Your task to perform on an android device: Play the last video I watched on Youtube Image 0: 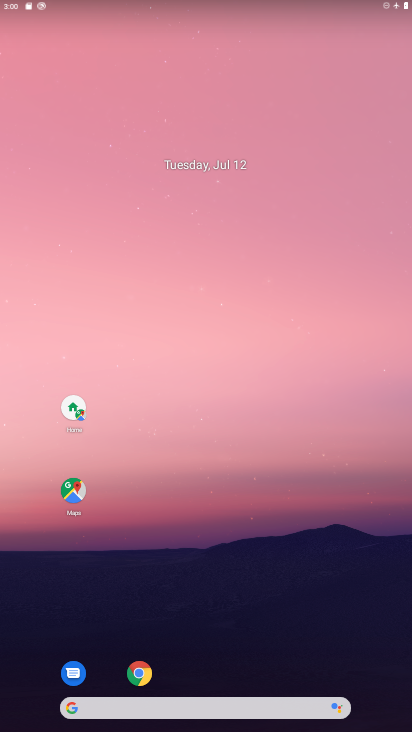
Step 0: drag from (289, 627) to (288, 307)
Your task to perform on an android device: Play the last video I watched on Youtube Image 1: 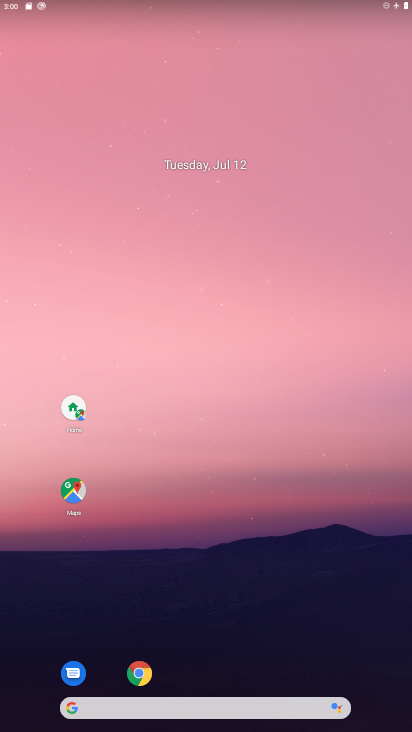
Step 1: drag from (262, 652) to (258, 288)
Your task to perform on an android device: Play the last video I watched on Youtube Image 2: 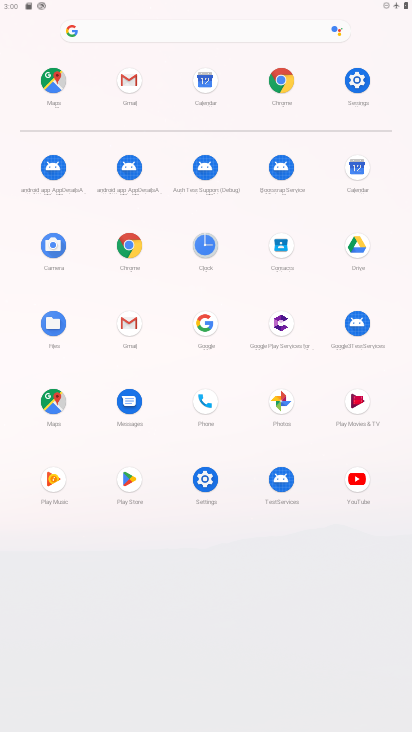
Step 2: click (359, 473)
Your task to perform on an android device: Play the last video I watched on Youtube Image 3: 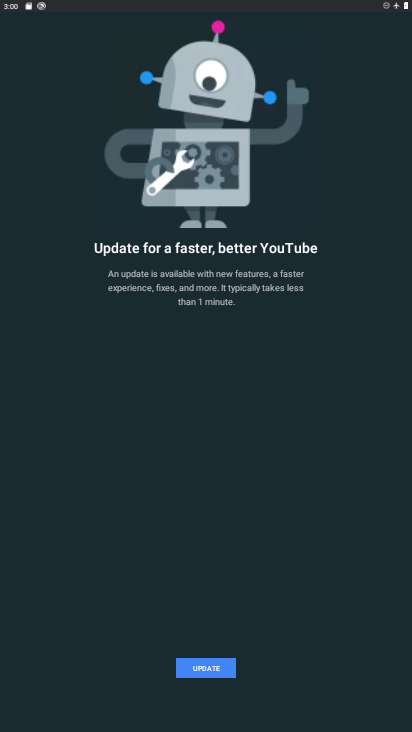
Step 3: task complete